Your task to perform on an android device: Go to Yahoo.com Image 0: 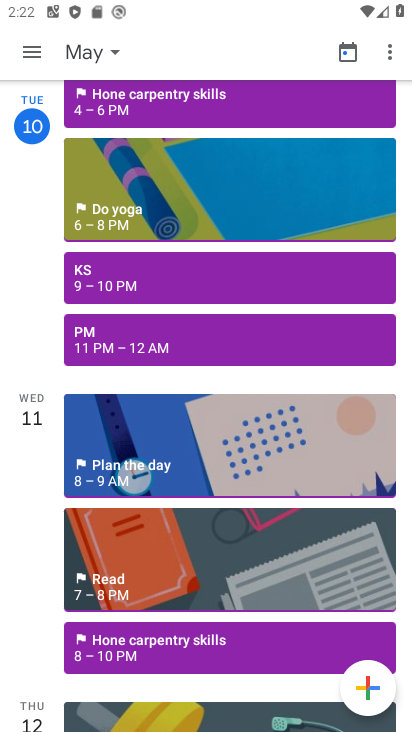
Step 0: press home button
Your task to perform on an android device: Go to Yahoo.com Image 1: 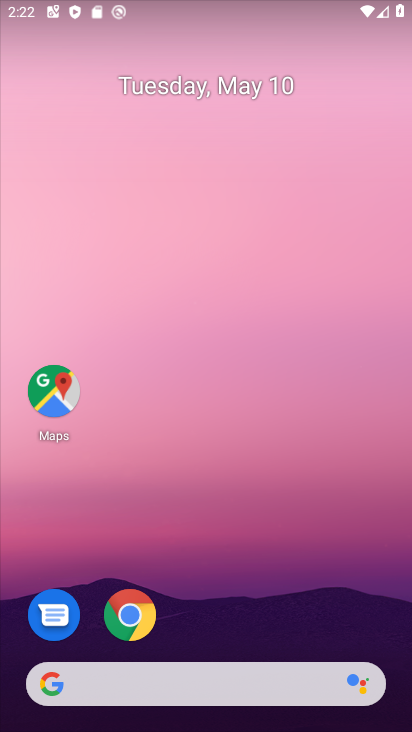
Step 1: drag from (239, 620) to (271, 177)
Your task to perform on an android device: Go to Yahoo.com Image 2: 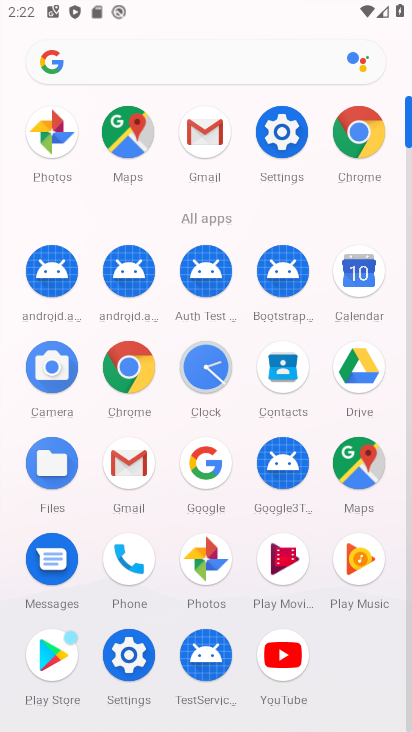
Step 2: click (346, 140)
Your task to perform on an android device: Go to Yahoo.com Image 3: 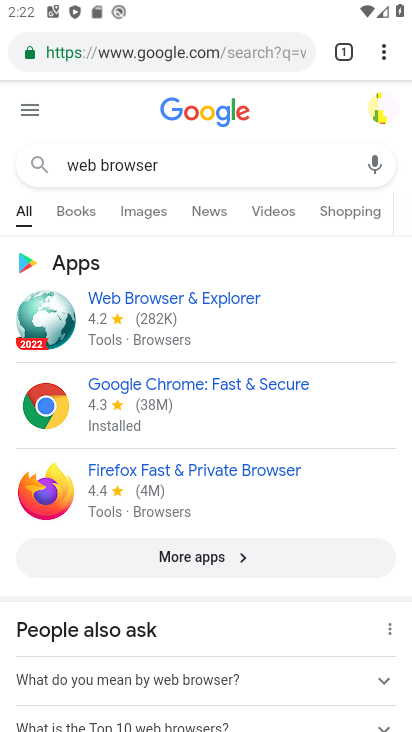
Step 3: click (201, 44)
Your task to perform on an android device: Go to Yahoo.com Image 4: 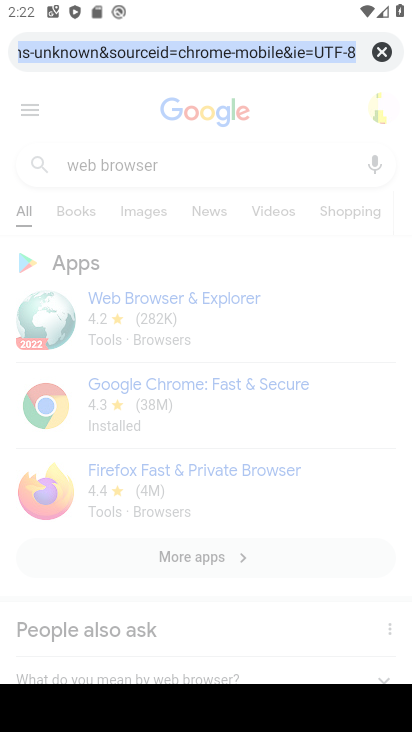
Step 4: click (379, 53)
Your task to perform on an android device: Go to Yahoo.com Image 5: 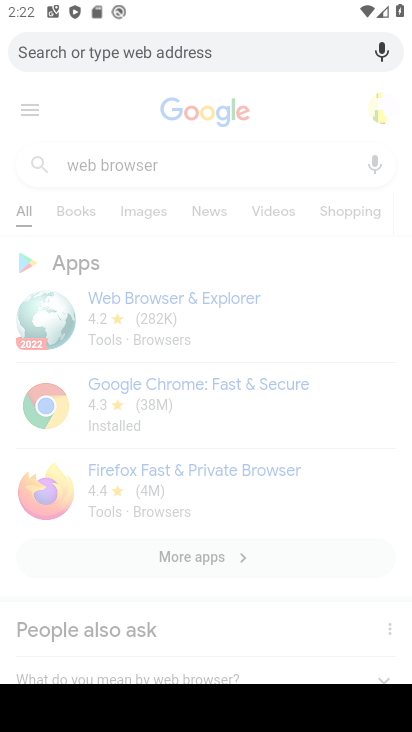
Step 5: type " Yahoo.com"
Your task to perform on an android device: Go to Yahoo.com Image 6: 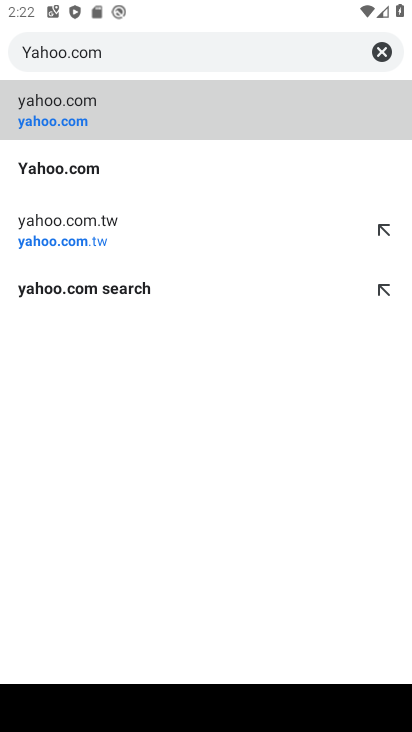
Step 6: click (53, 118)
Your task to perform on an android device: Go to Yahoo.com Image 7: 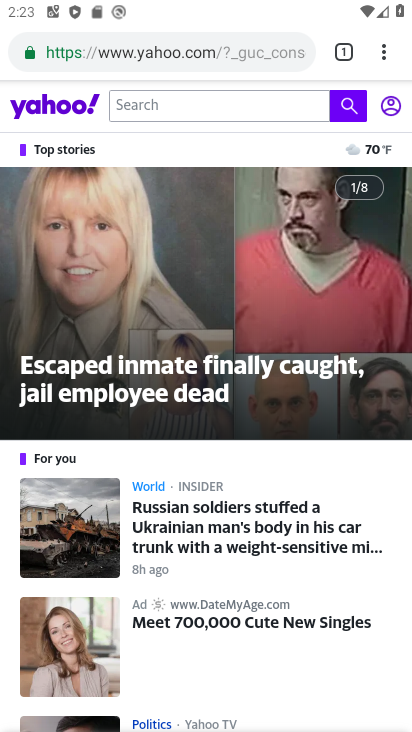
Step 7: task complete